Your task to perform on an android device: open app "Google Translate" (install if not already installed) Image 0: 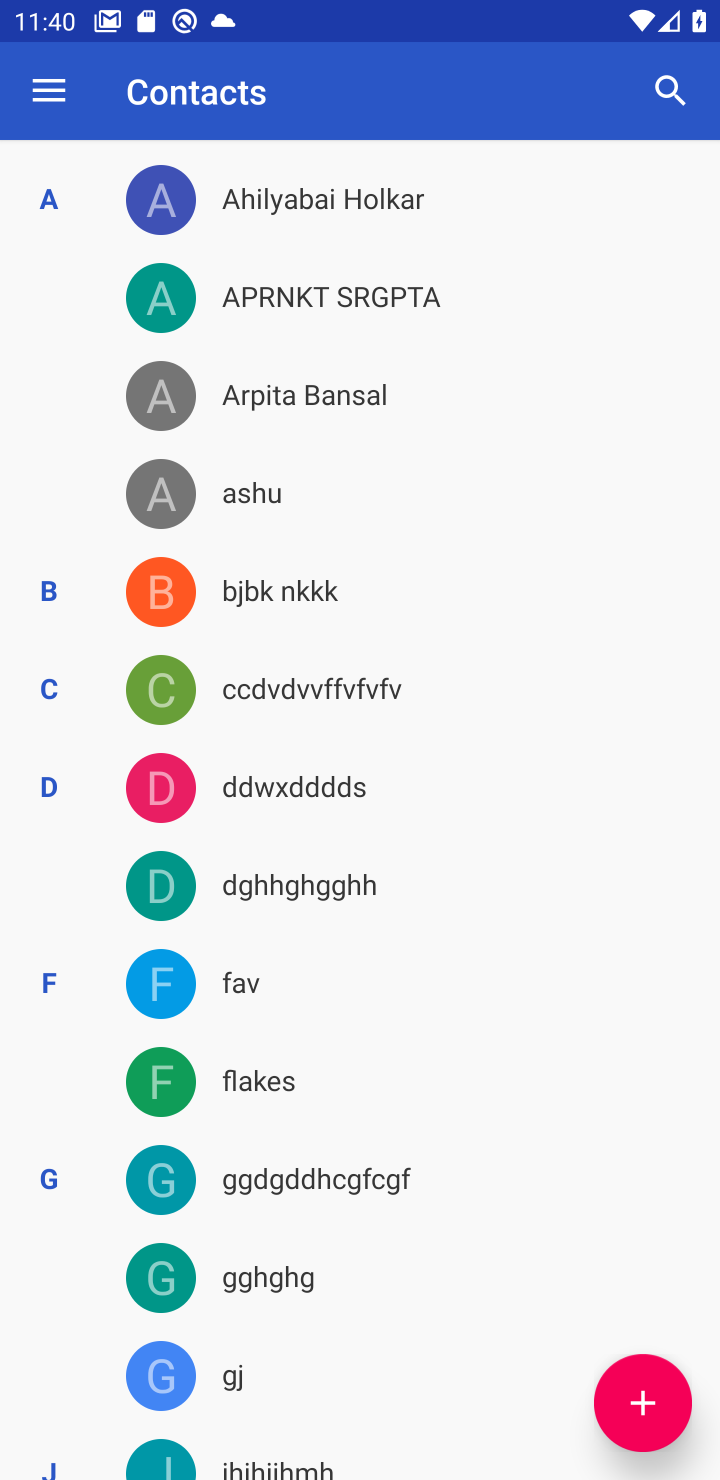
Step 0: press home button
Your task to perform on an android device: open app "Google Translate" (install if not already installed) Image 1: 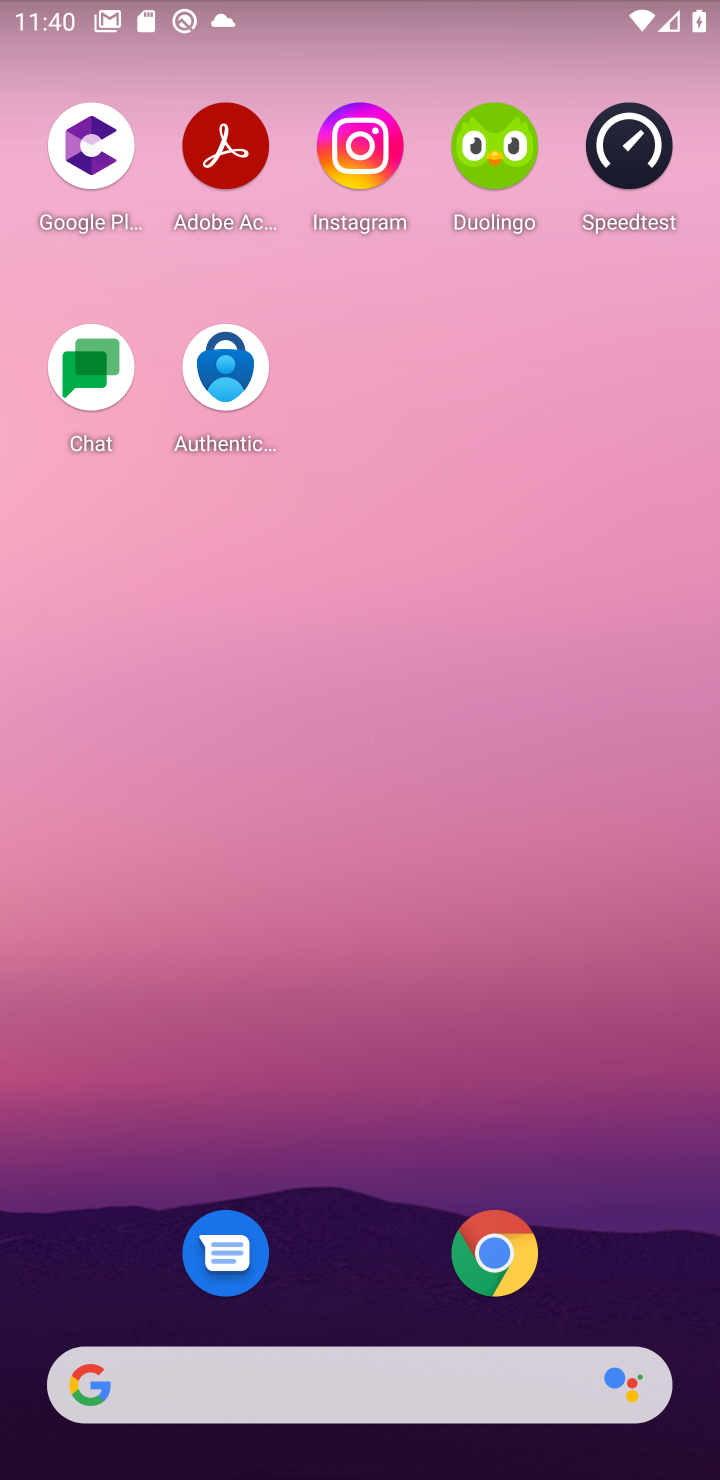
Step 1: drag from (455, 1078) to (537, 377)
Your task to perform on an android device: open app "Google Translate" (install if not already installed) Image 2: 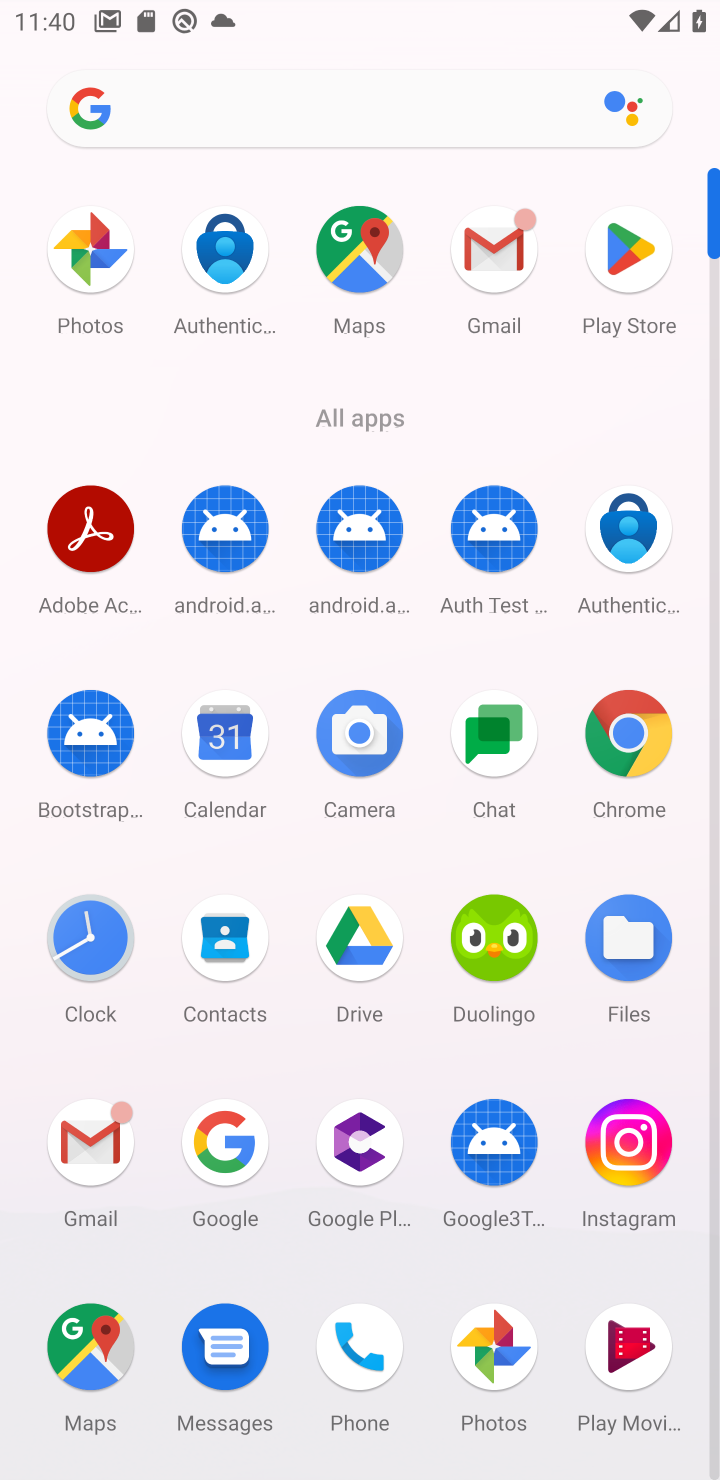
Step 2: click (641, 230)
Your task to perform on an android device: open app "Google Translate" (install if not already installed) Image 3: 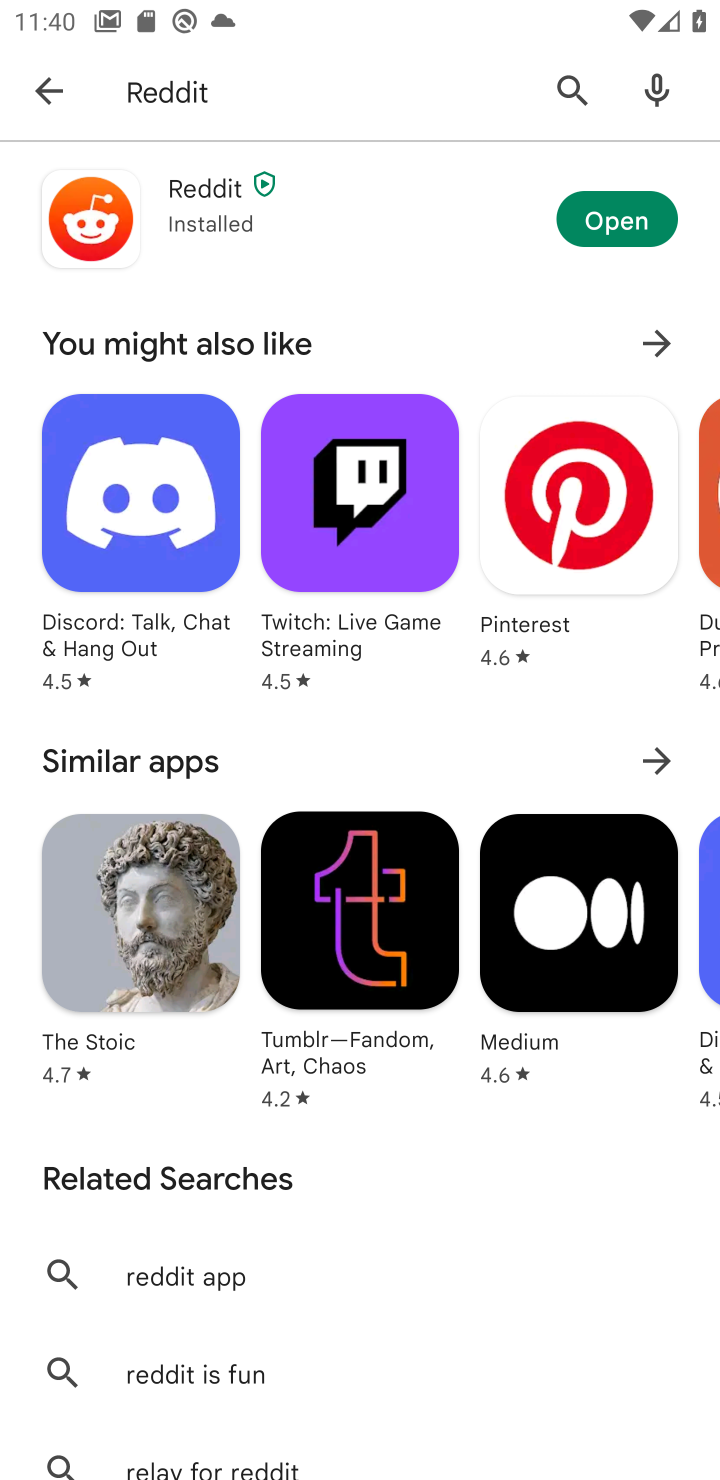
Step 3: click (276, 93)
Your task to perform on an android device: open app "Google Translate" (install if not already installed) Image 4: 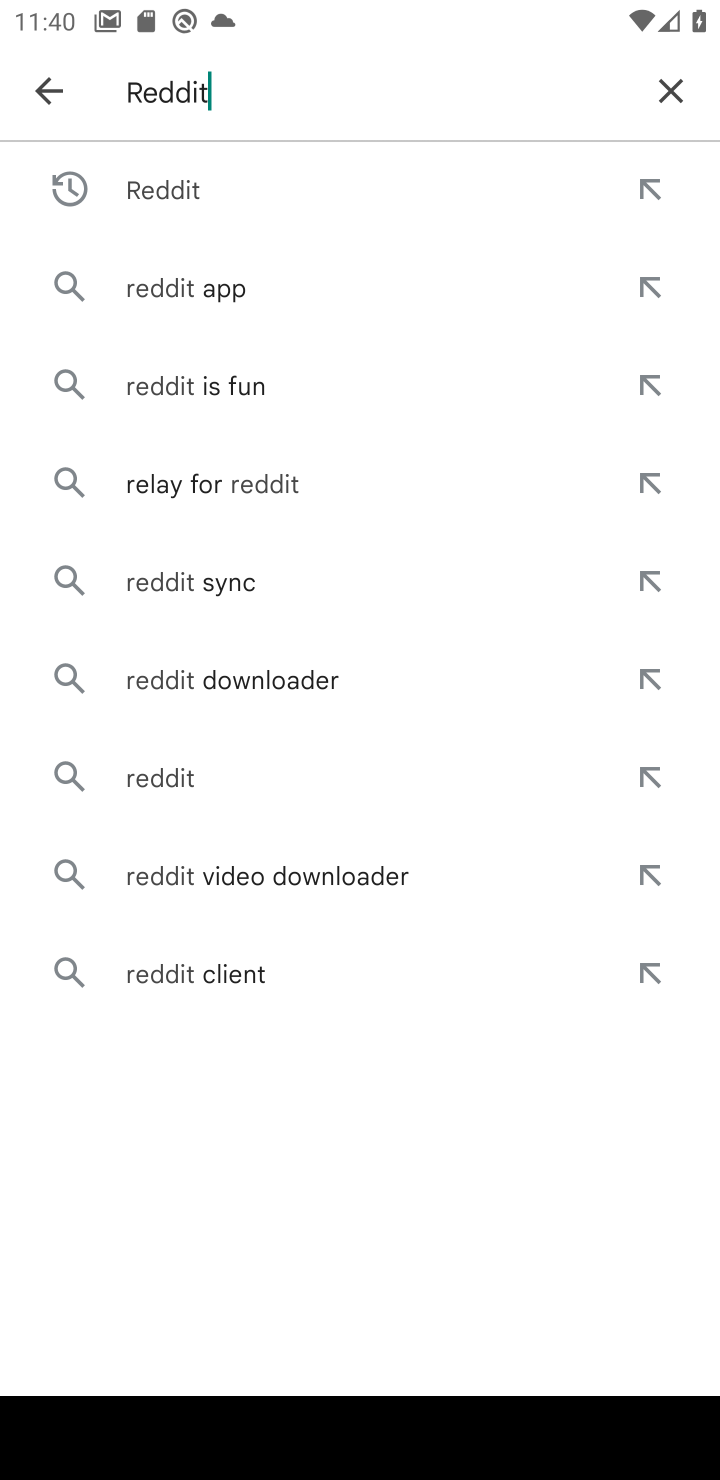
Step 4: click (669, 86)
Your task to perform on an android device: open app "Google Translate" (install if not already installed) Image 5: 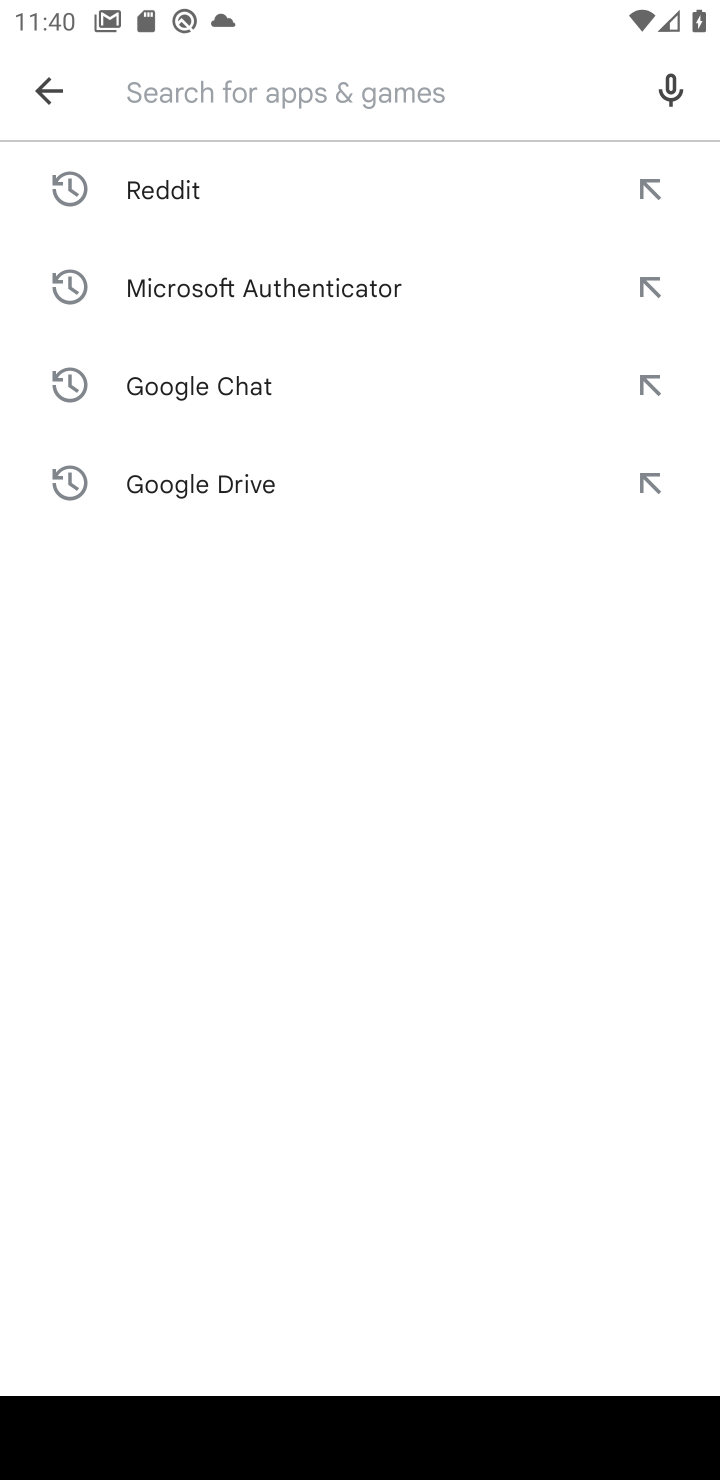
Step 5: type "Google Translate"
Your task to perform on an android device: open app "Google Translate" (install if not already installed) Image 6: 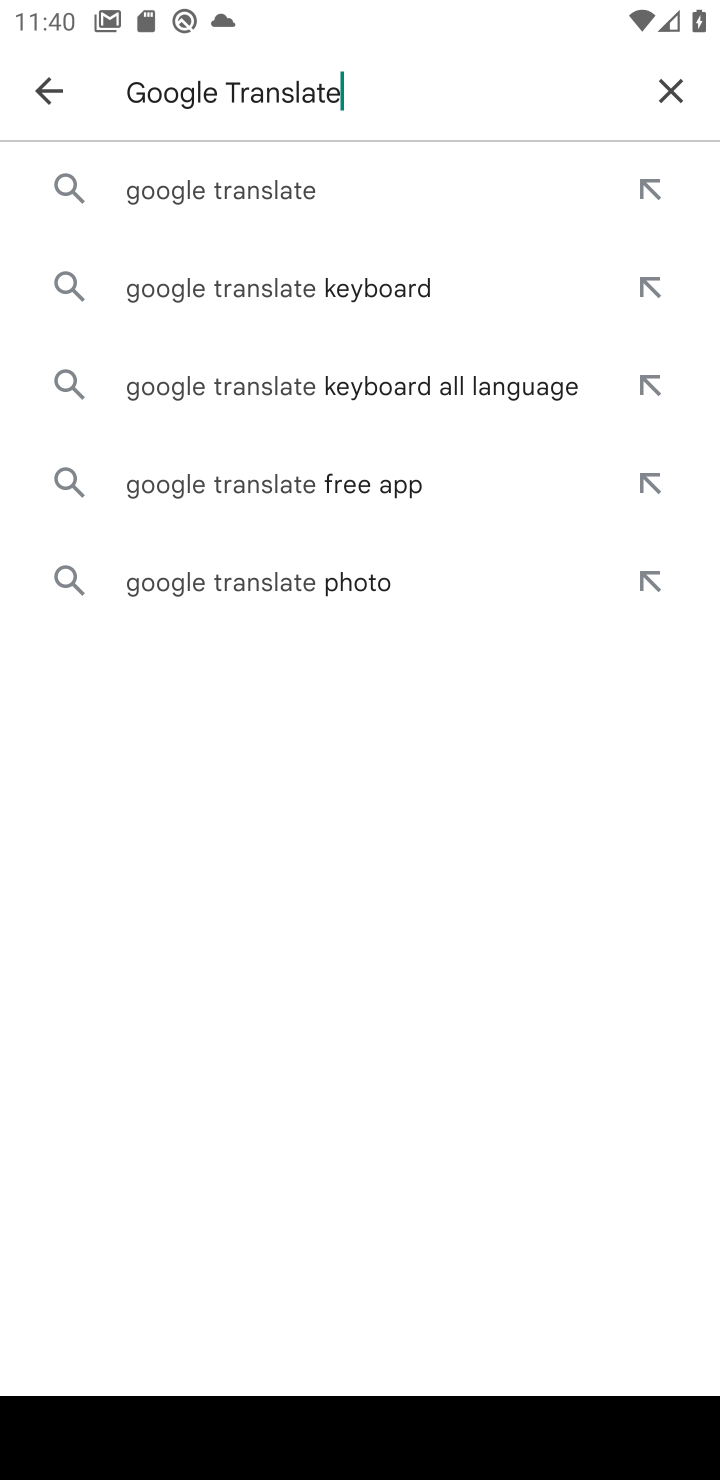
Step 6: press enter
Your task to perform on an android device: open app "Google Translate" (install if not already installed) Image 7: 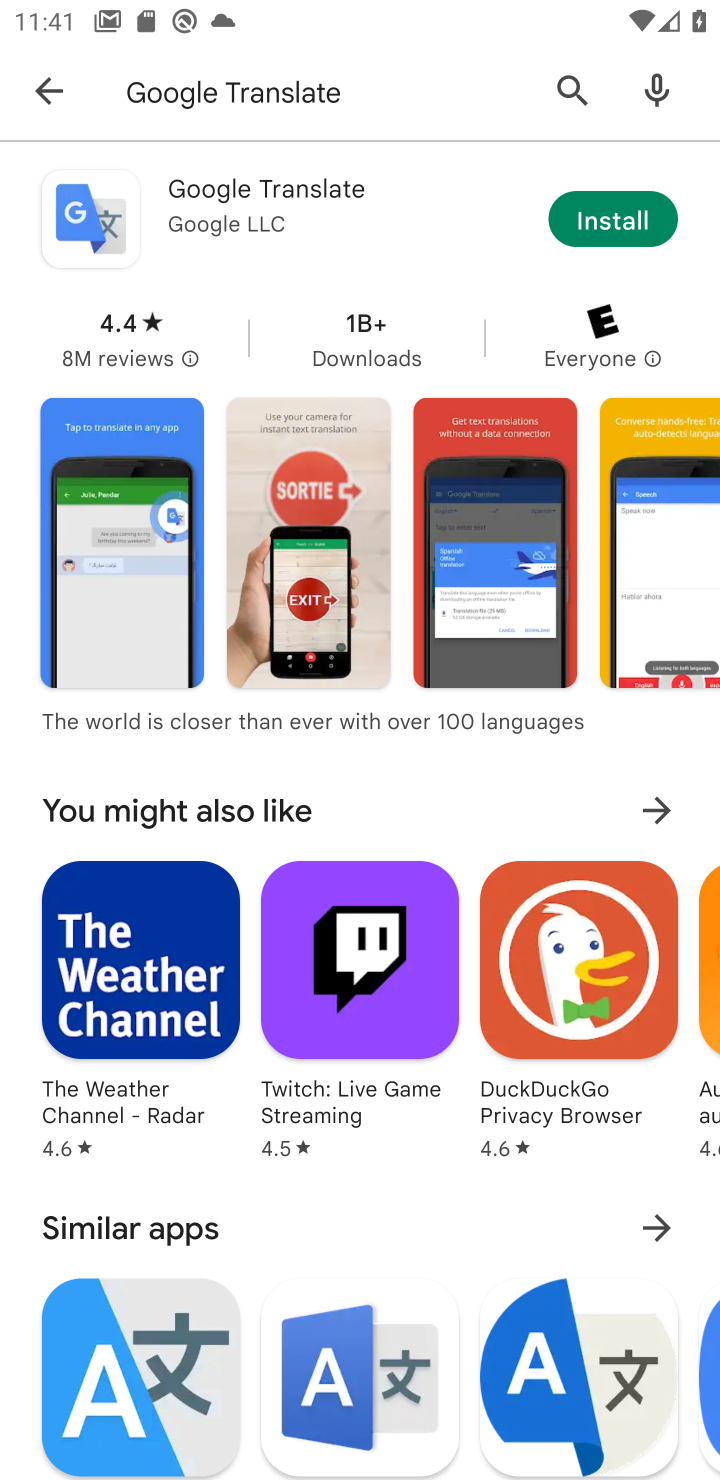
Step 7: click (623, 215)
Your task to perform on an android device: open app "Google Translate" (install if not already installed) Image 8: 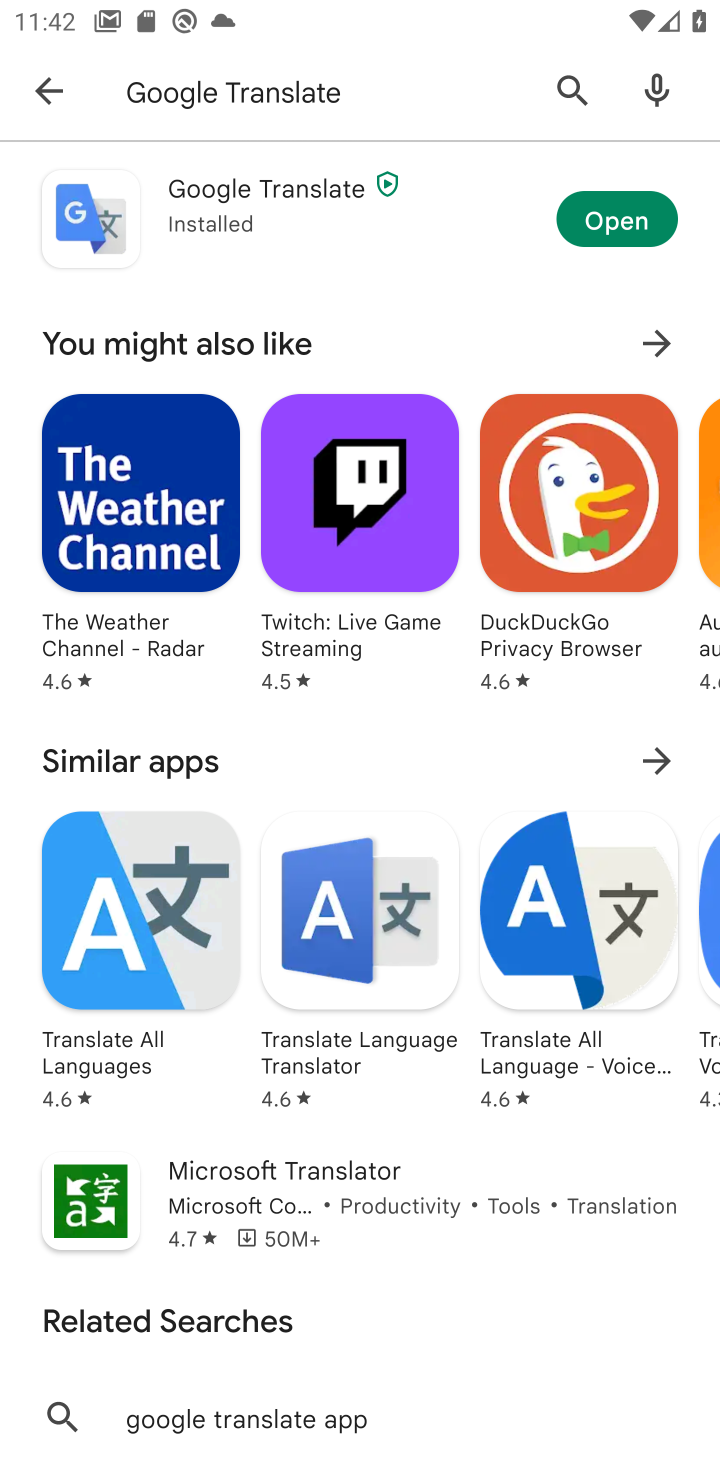
Step 8: click (616, 228)
Your task to perform on an android device: open app "Google Translate" (install if not already installed) Image 9: 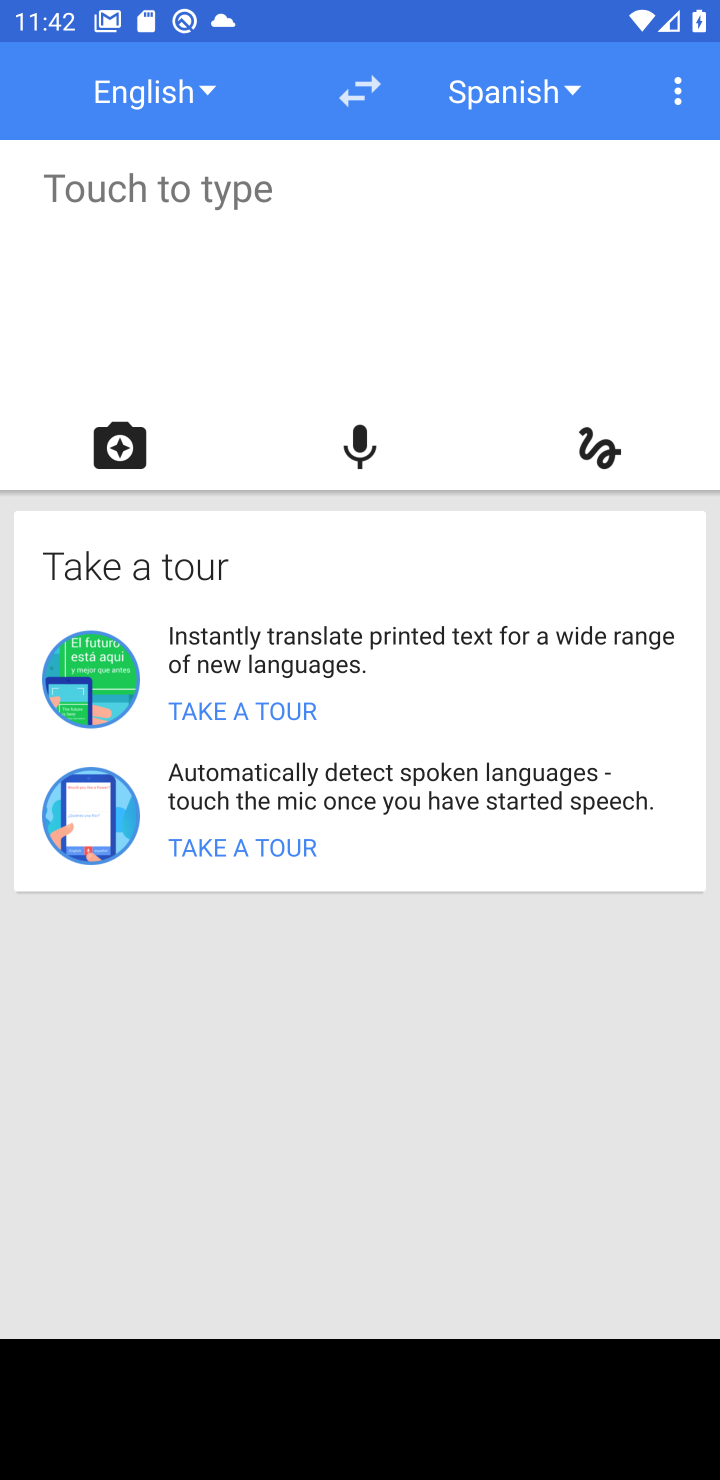
Step 9: task complete